Your task to perform on an android device: Do I have any events tomorrow? Image 0: 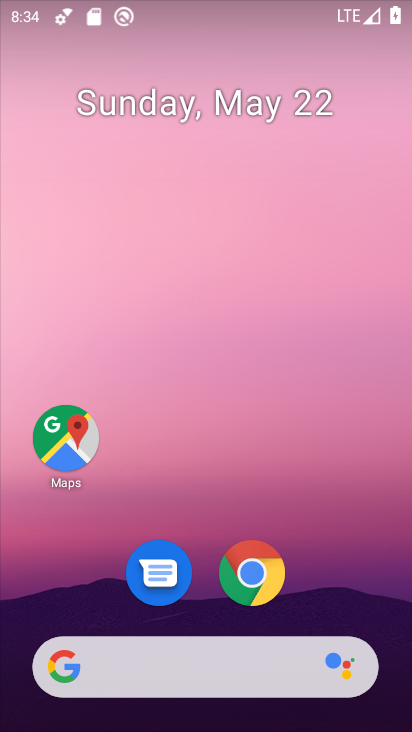
Step 0: drag from (209, 593) to (266, 8)
Your task to perform on an android device: Do I have any events tomorrow? Image 1: 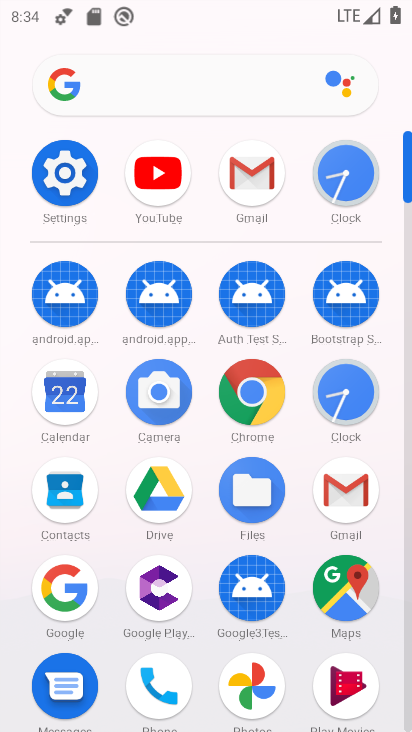
Step 1: click (55, 375)
Your task to perform on an android device: Do I have any events tomorrow? Image 2: 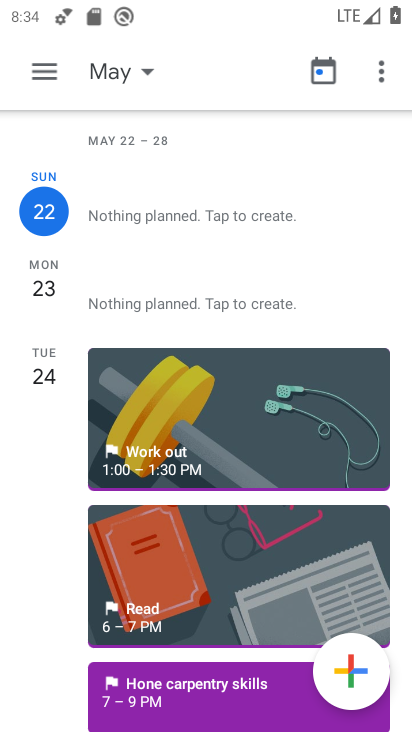
Step 2: click (141, 47)
Your task to perform on an android device: Do I have any events tomorrow? Image 3: 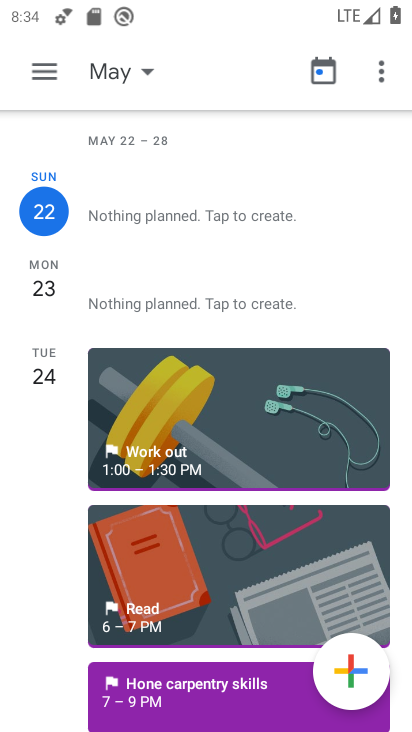
Step 3: click (143, 69)
Your task to perform on an android device: Do I have any events tomorrow? Image 4: 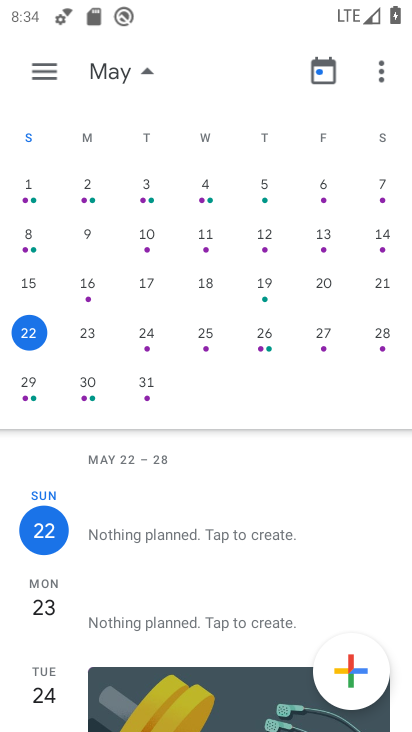
Step 4: click (96, 319)
Your task to perform on an android device: Do I have any events tomorrow? Image 5: 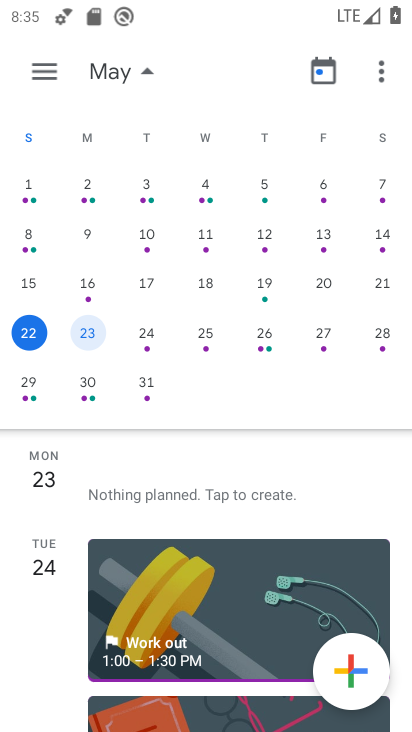
Step 5: task complete